Your task to perform on an android device: uninstall "LinkedIn" Image 0: 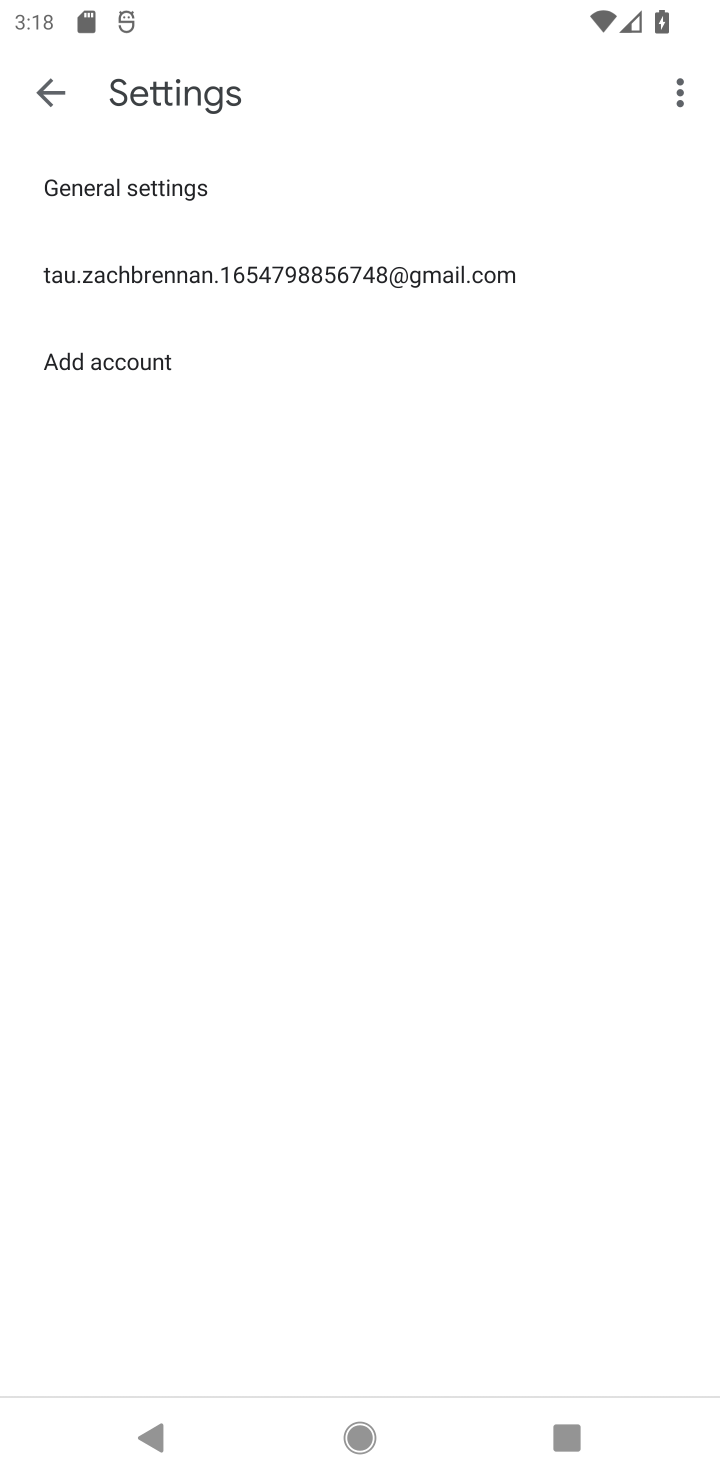
Step 0: press home button
Your task to perform on an android device: uninstall "LinkedIn" Image 1: 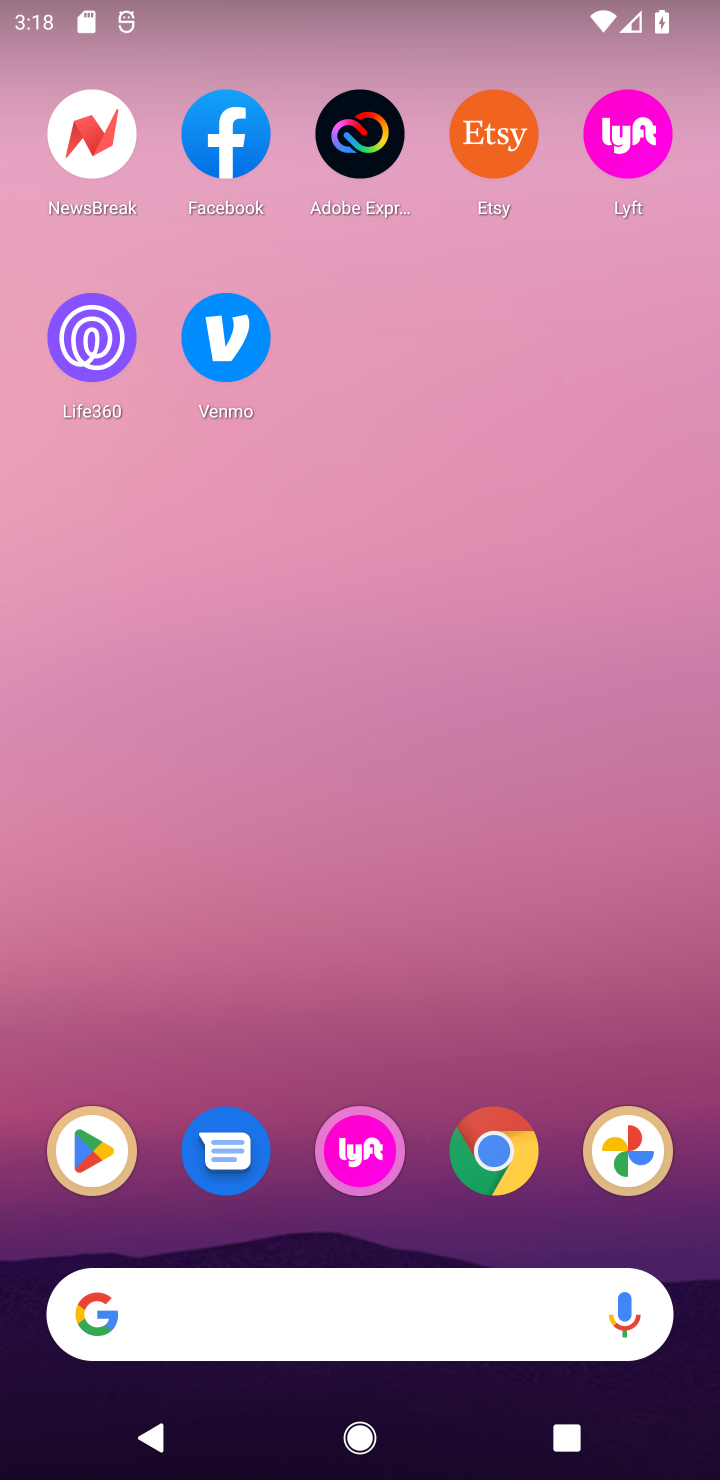
Step 1: drag from (413, 1468) to (350, 406)
Your task to perform on an android device: uninstall "LinkedIn" Image 2: 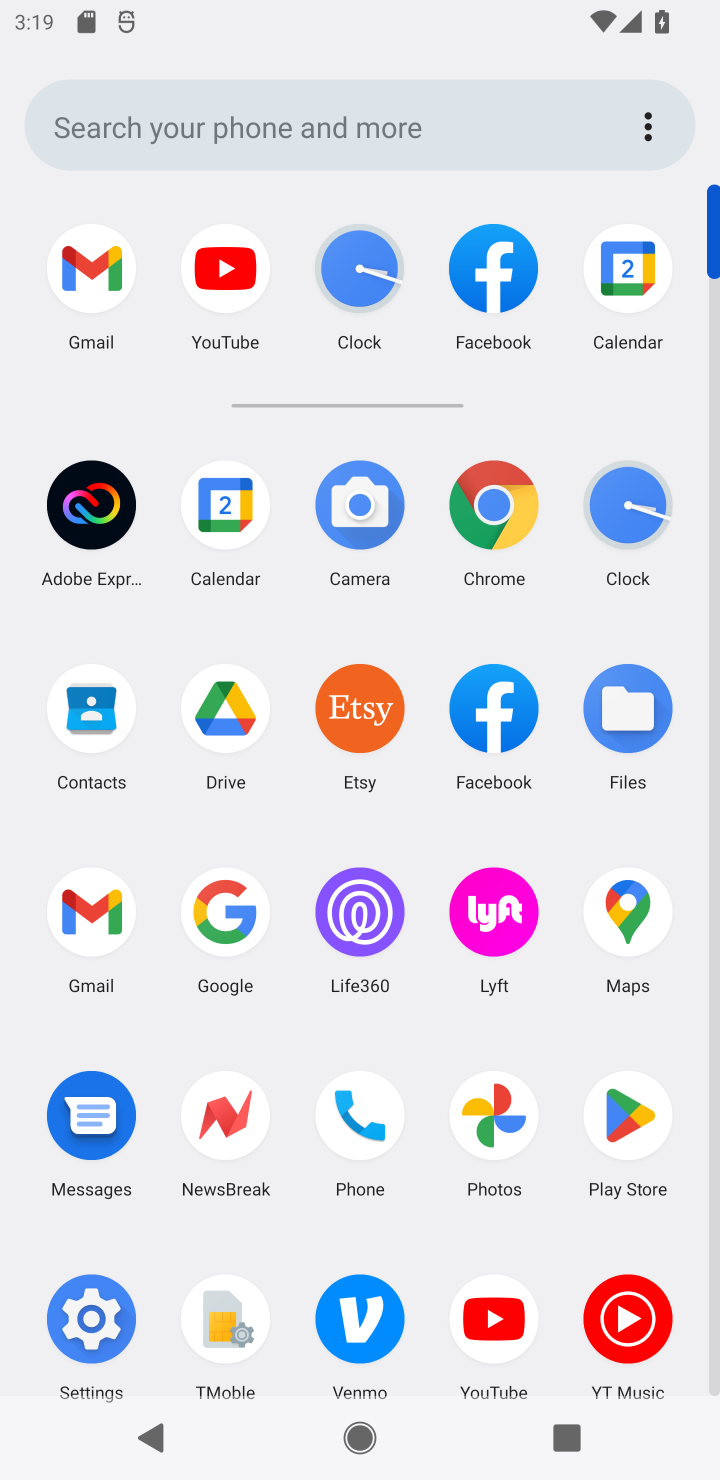
Step 2: click (617, 1129)
Your task to perform on an android device: uninstall "LinkedIn" Image 3: 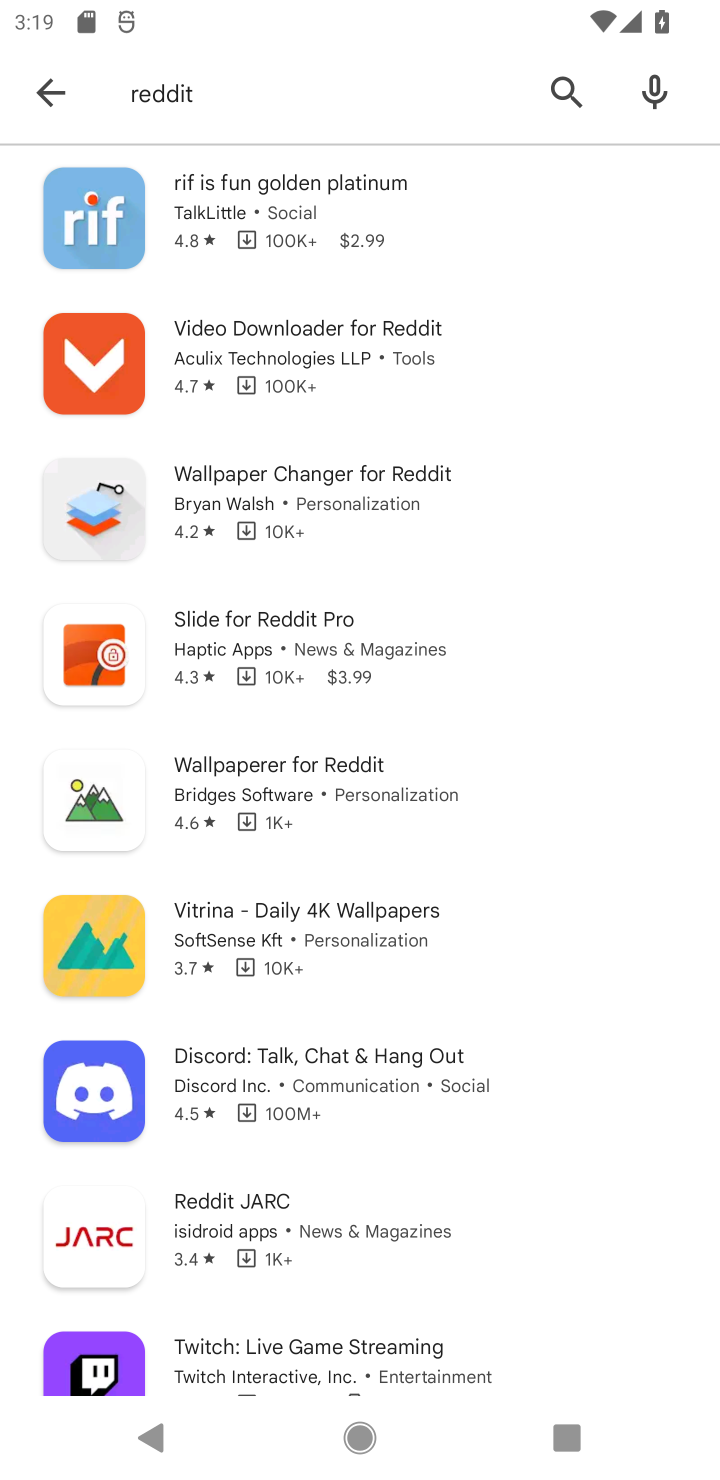
Step 3: drag from (330, 1266) to (271, 472)
Your task to perform on an android device: uninstall "LinkedIn" Image 4: 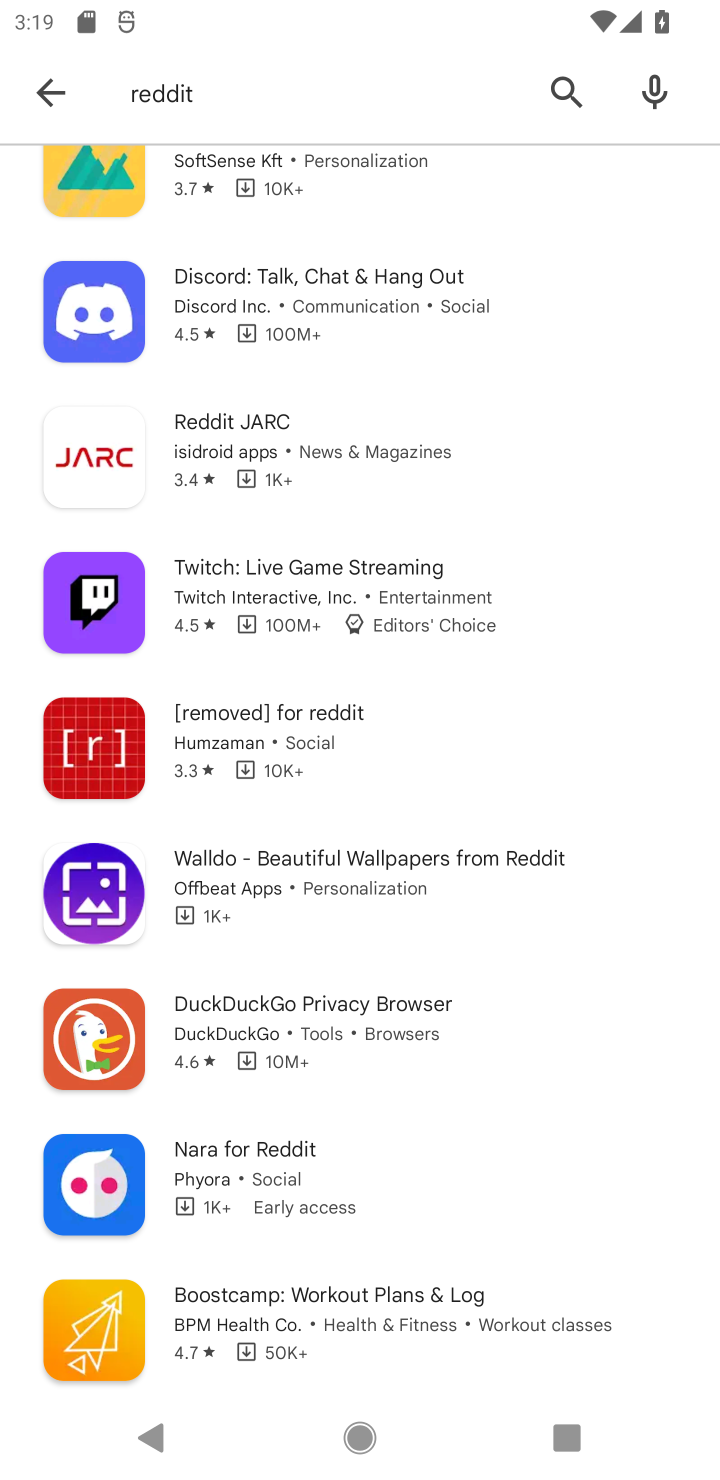
Step 4: click (561, 89)
Your task to perform on an android device: uninstall "LinkedIn" Image 5: 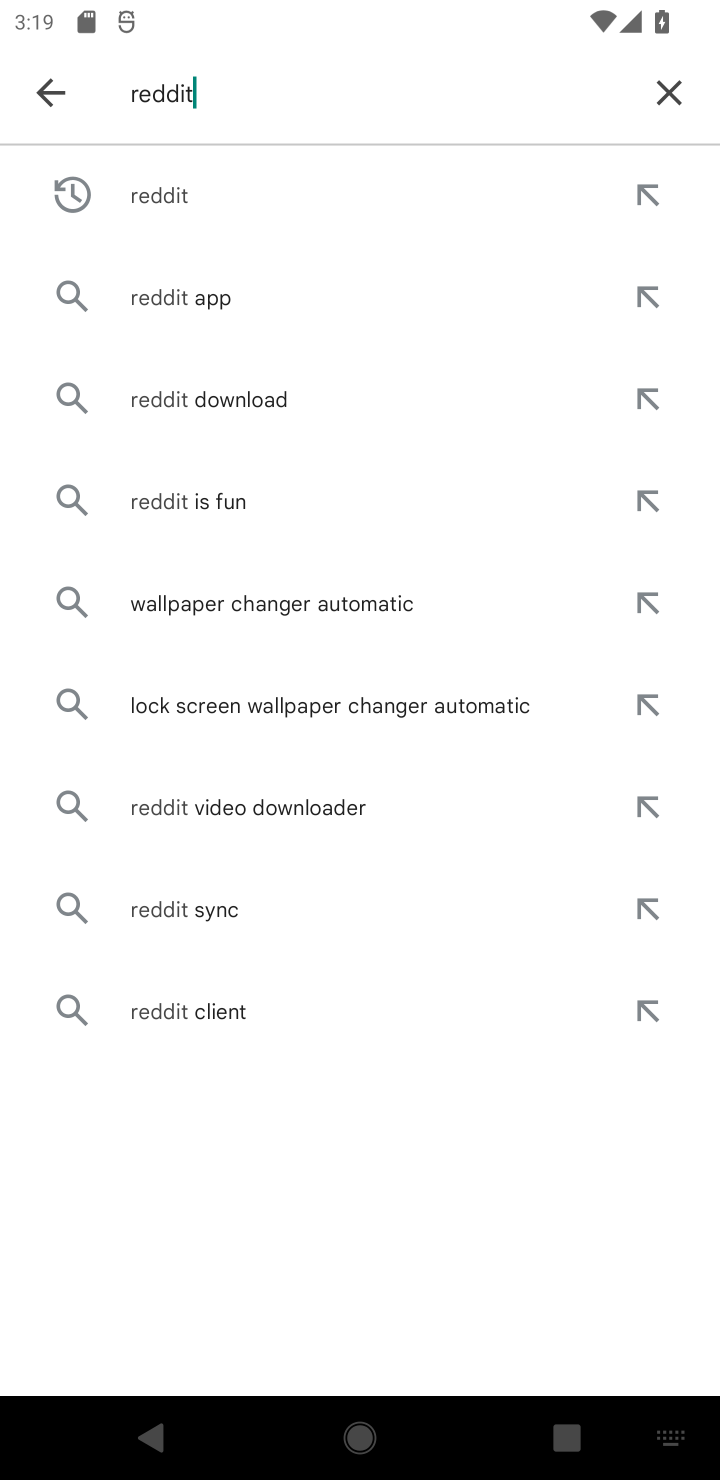
Step 5: click (674, 84)
Your task to perform on an android device: uninstall "LinkedIn" Image 6: 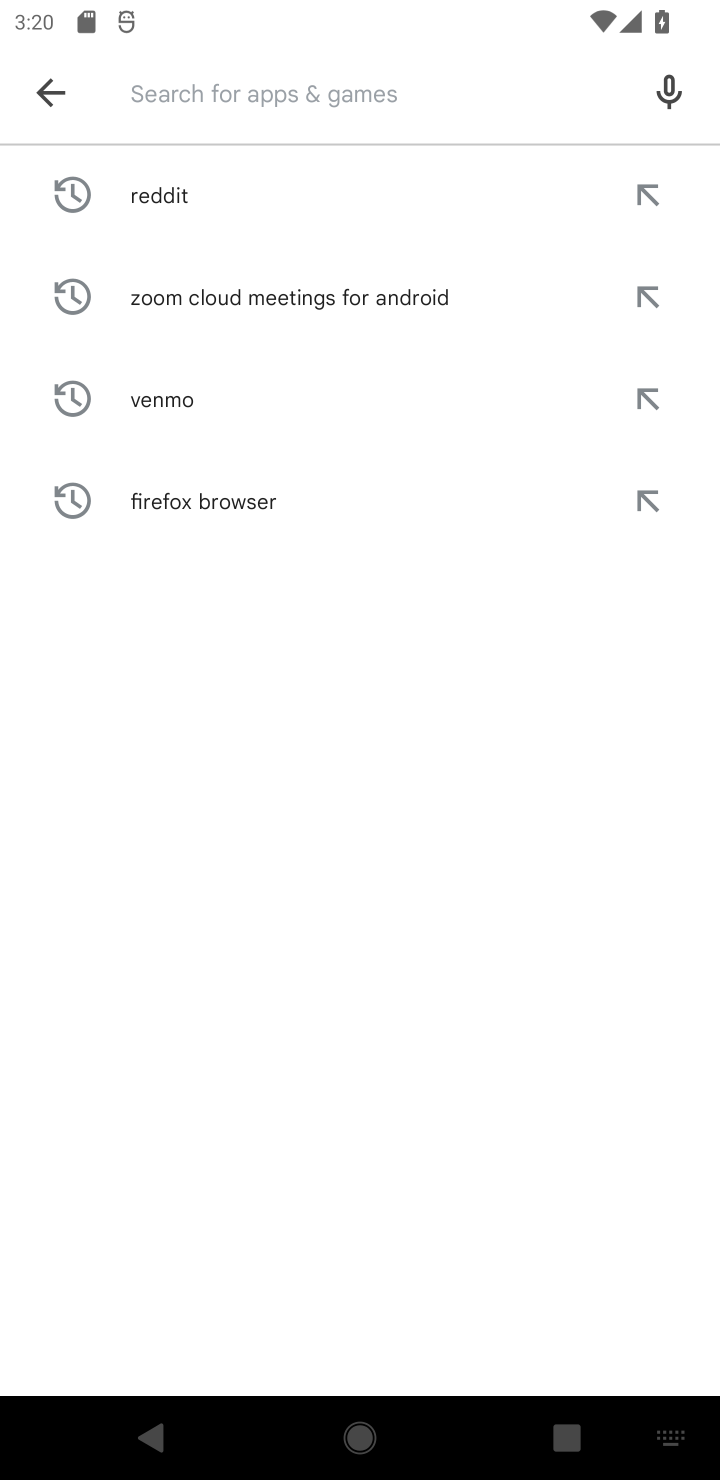
Step 6: type "LinkedIn"
Your task to perform on an android device: uninstall "LinkedIn" Image 7: 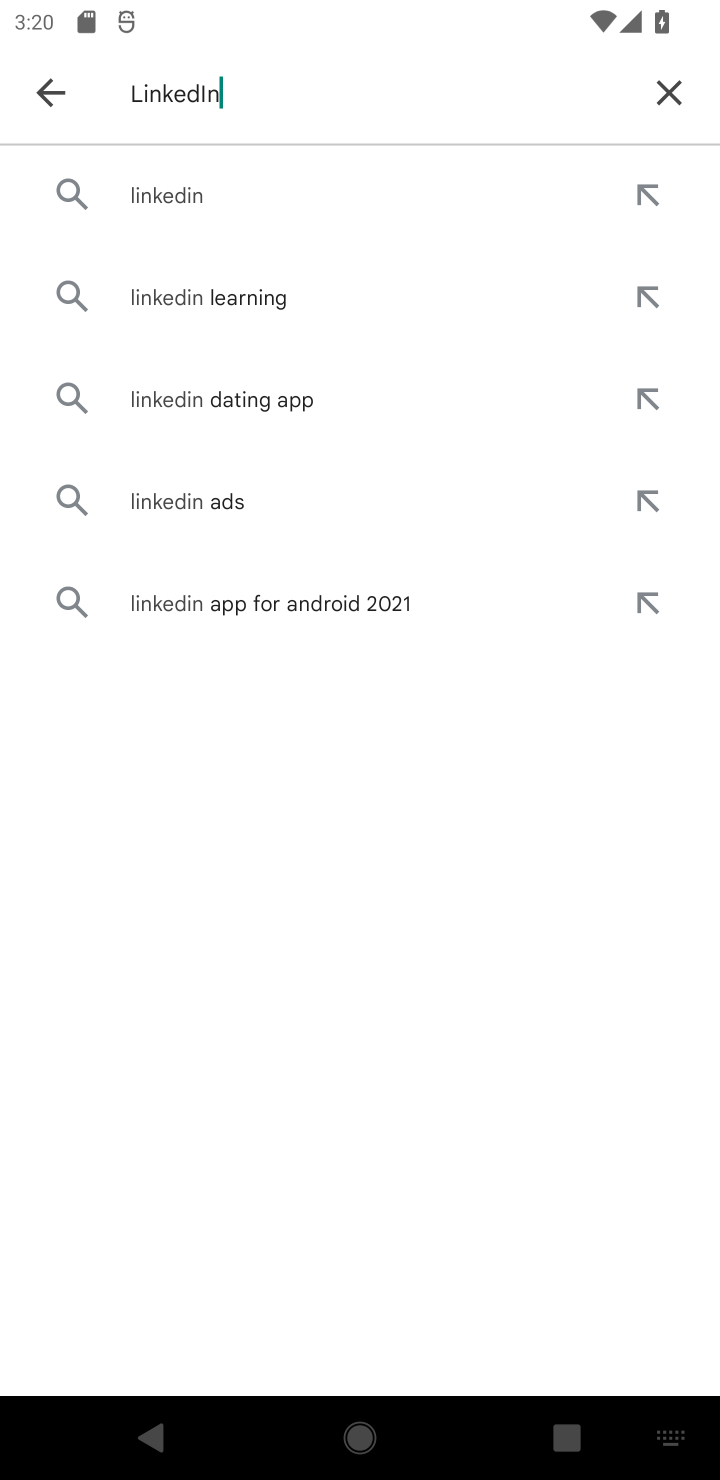
Step 7: click (166, 193)
Your task to perform on an android device: uninstall "LinkedIn" Image 8: 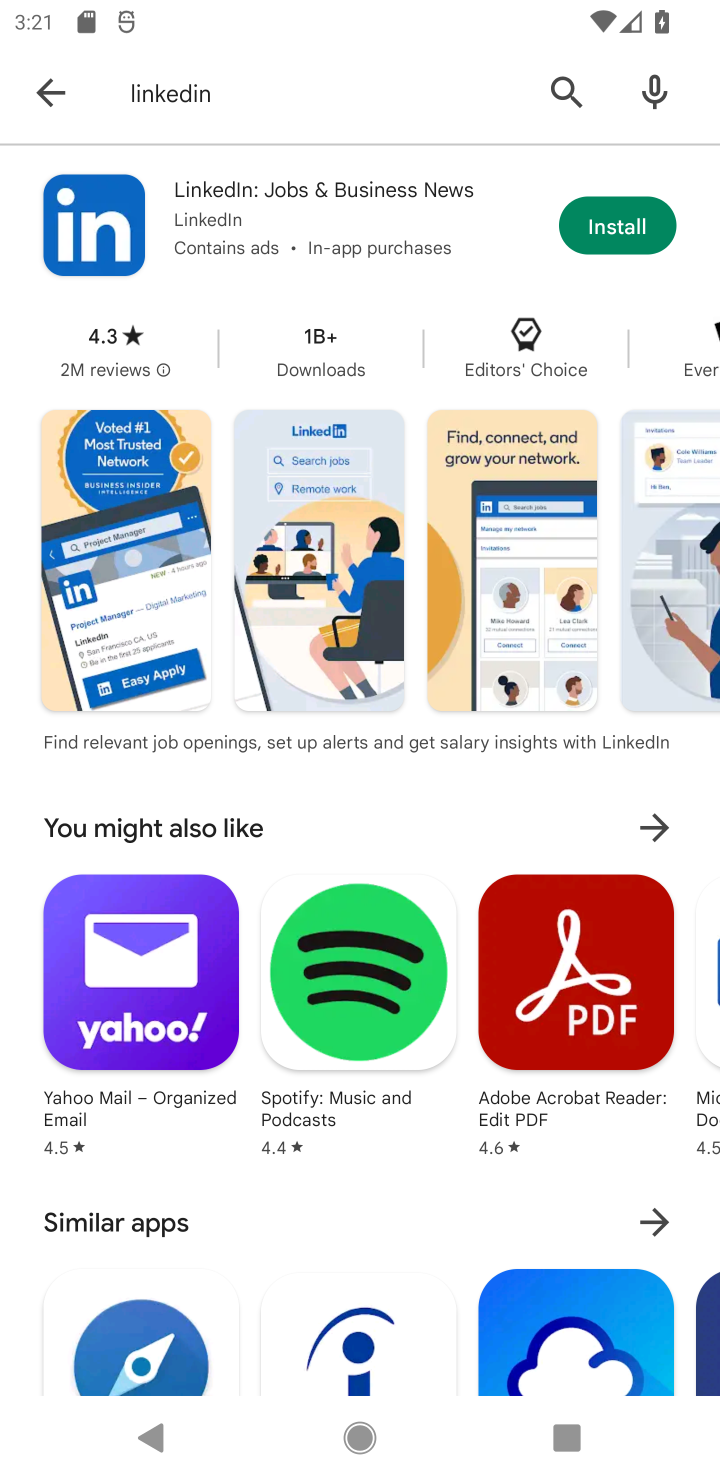
Step 8: task complete